Your task to perform on an android device: Search for "logitech g502" on walmart, select the first entry, add it to the cart, then select checkout. Image 0: 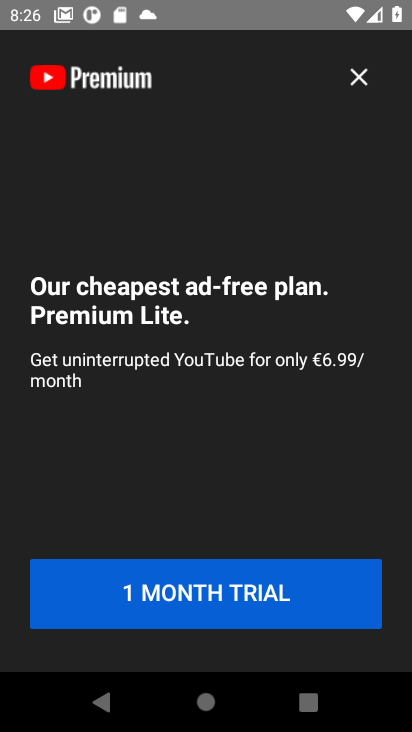
Step 0: task complete